Your task to perform on an android device: empty trash in the gmail app Image 0: 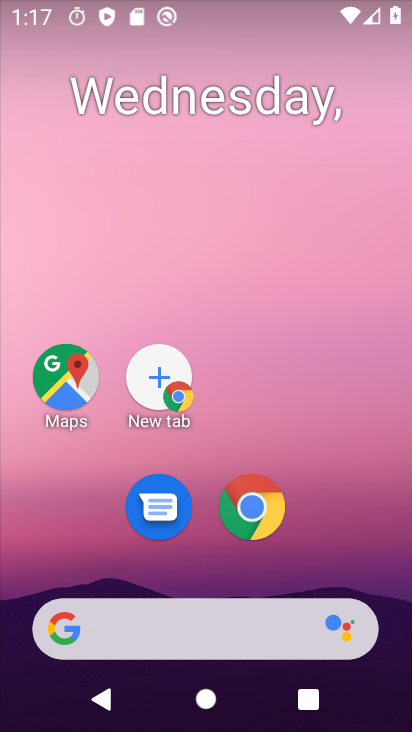
Step 0: drag from (352, 551) to (403, 72)
Your task to perform on an android device: empty trash in the gmail app Image 1: 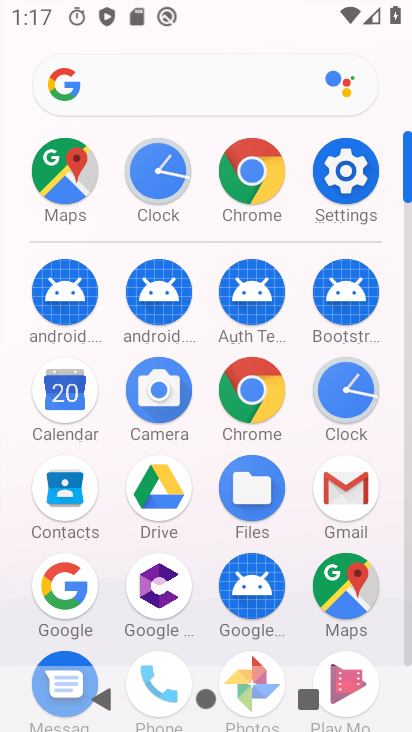
Step 1: click (350, 473)
Your task to perform on an android device: empty trash in the gmail app Image 2: 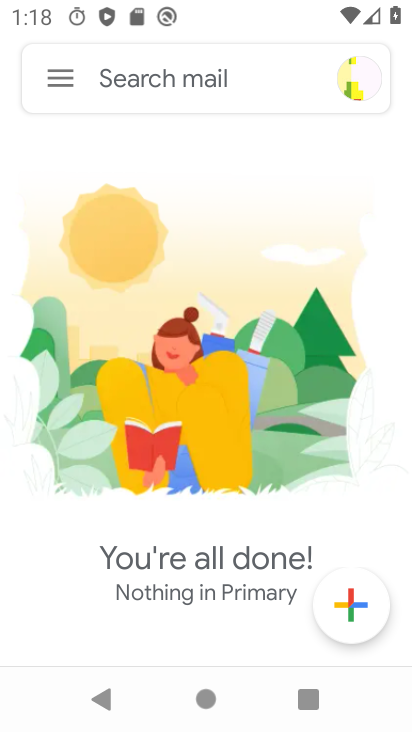
Step 2: click (65, 89)
Your task to perform on an android device: empty trash in the gmail app Image 3: 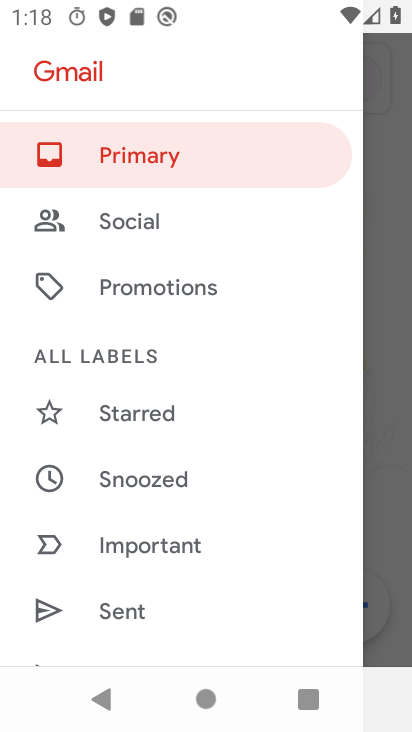
Step 3: drag from (177, 585) to (310, 222)
Your task to perform on an android device: empty trash in the gmail app Image 4: 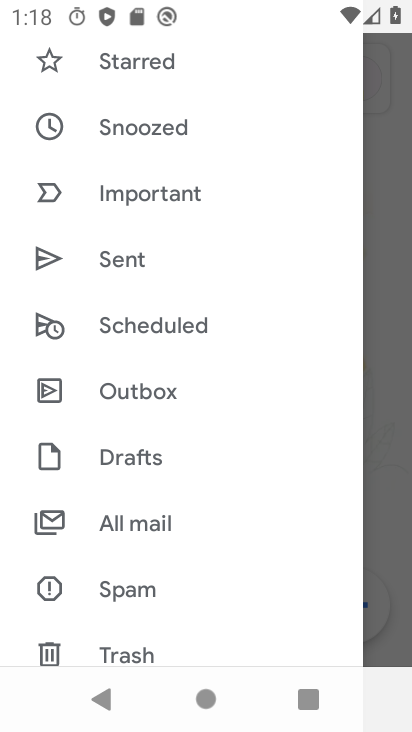
Step 4: drag from (194, 616) to (287, 191)
Your task to perform on an android device: empty trash in the gmail app Image 5: 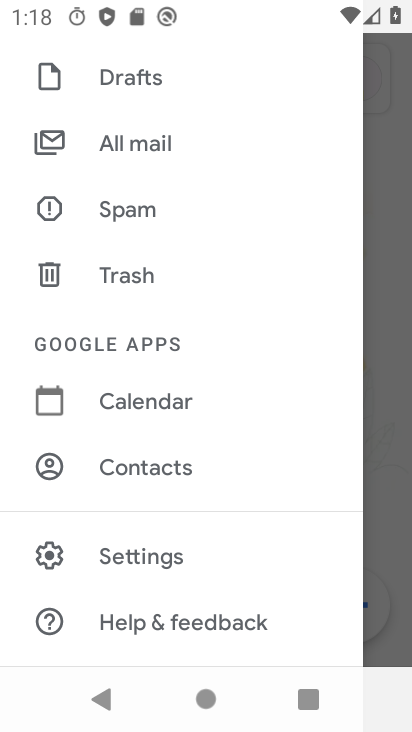
Step 5: click (161, 271)
Your task to perform on an android device: empty trash in the gmail app Image 6: 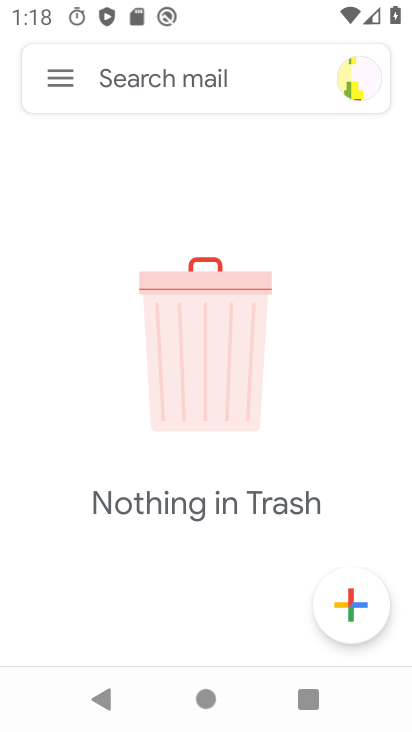
Step 6: task complete